Your task to perform on an android device: turn pop-ups off in chrome Image 0: 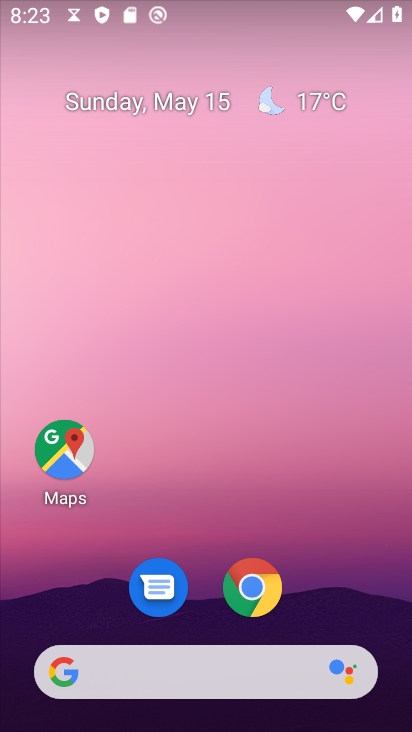
Step 0: drag from (311, 517) to (316, 347)
Your task to perform on an android device: turn pop-ups off in chrome Image 1: 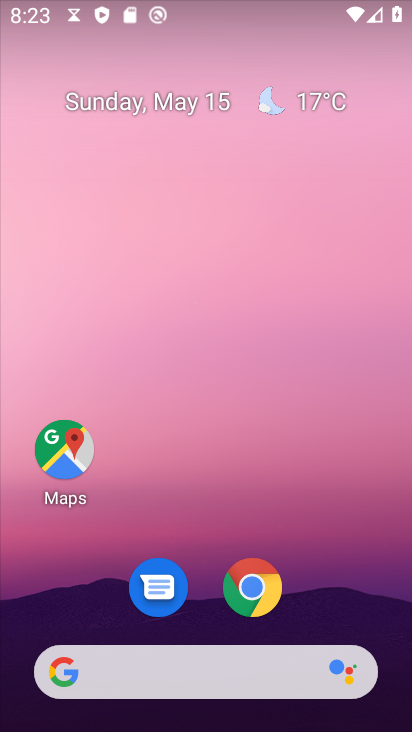
Step 1: drag from (388, 578) to (270, 129)
Your task to perform on an android device: turn pop-ups off in chrome Image 2: 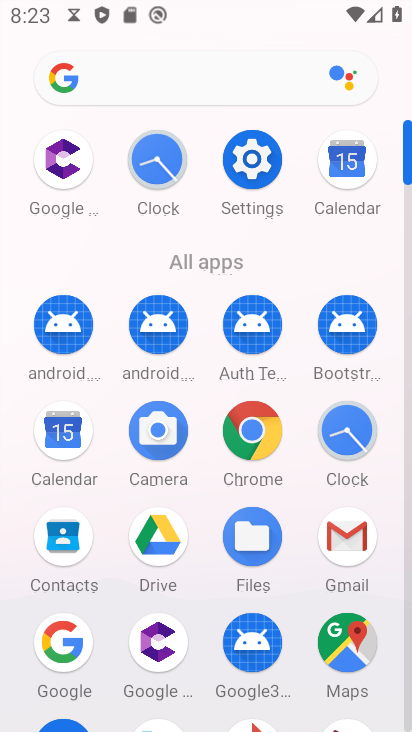
Step 2: click (252, 441)
Your task to perform on an android device: turn pop-ups off in chrome Image 3: 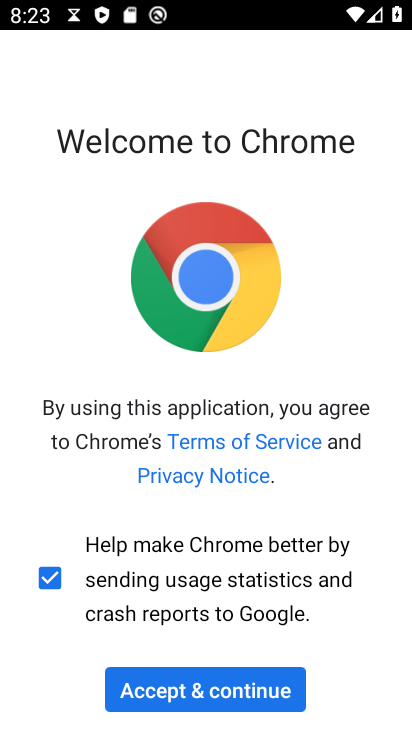
Step 3: click (168, 686)
Your task to perform on an android device: turn pop-ups off in chrome Image 4: 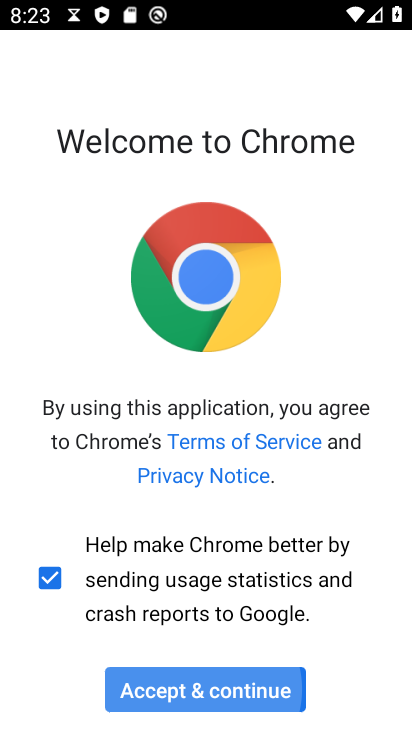
Step 4: click (169, 684)
Your task to perform on an android device: turn pop-ups off in chrome Image 5: 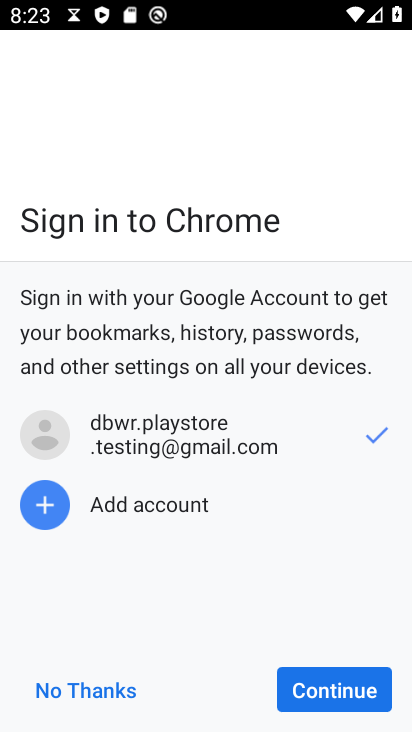
Step 5: click (169, 684)
Your task to perform on an android device: turn pop-ups off in chrome Image 6: 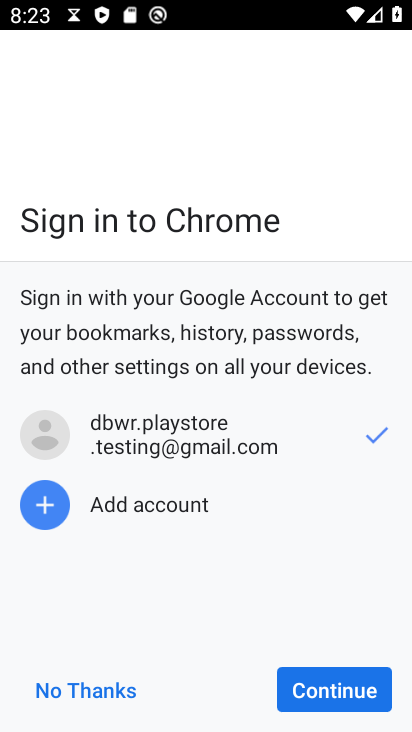
Step 6: click (327, 688)
Your task to perform on an android device: turn pop-ups off in chrome Image 7: 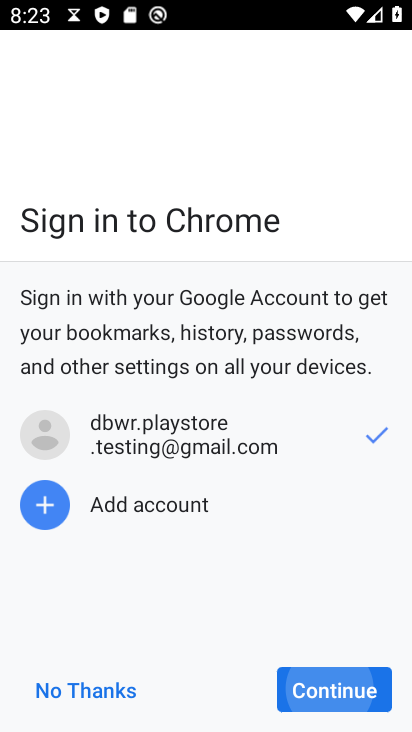
Step 7: click (327, 688)
Your task to perform on an android device: turn pop-ups off in chrome Image 8: 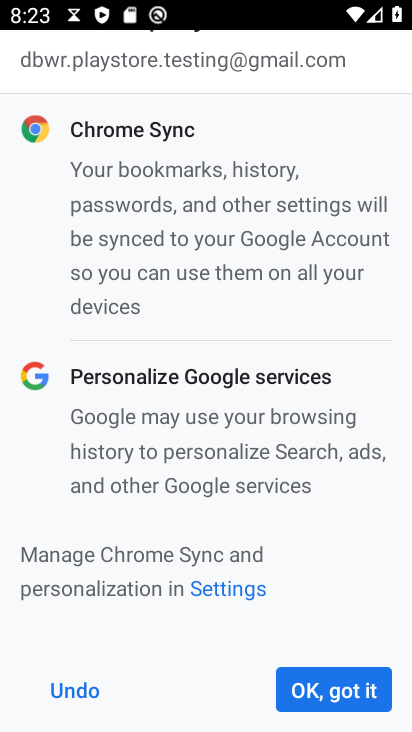
Step 8: click (328, 687)
Your task to perform on an android device: turn pop-ups off in chrome Image 9: 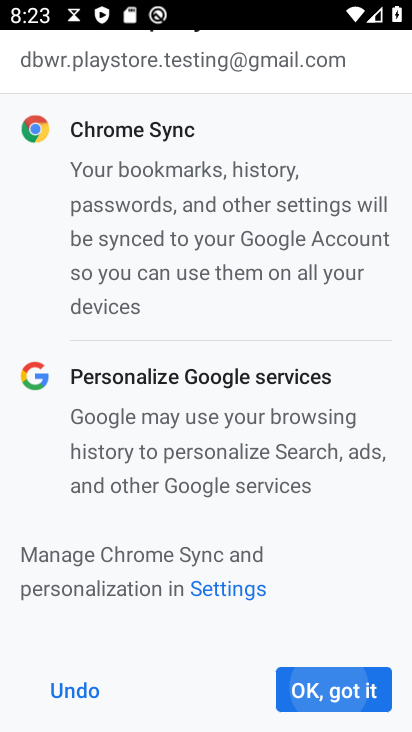
Step 9: click (329, 685)
Your task to perform on an android device: turn pop-ups off in chrome Image 10: 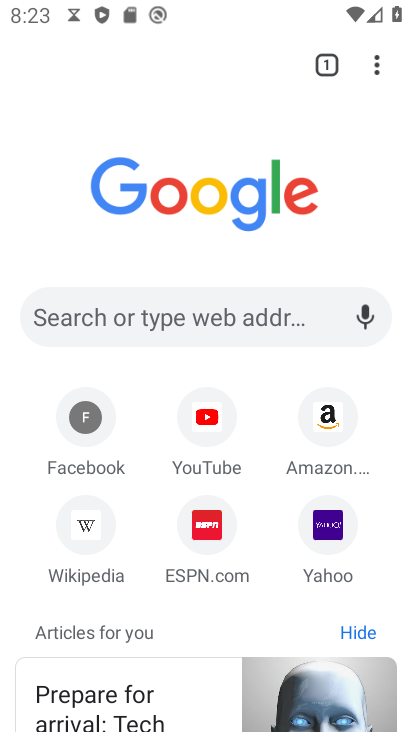
Step 10: click (374, 66)
Your task to perform on an android device: turn pop-ups off in chrome Image 11: 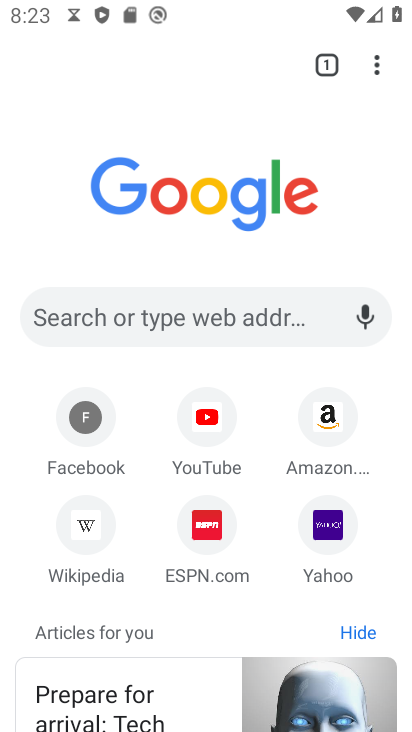
Step 11: drag from (377, 61) to (116, 539)
Your task to perform on an android device: turn pop-ups off in chrome Image 12: 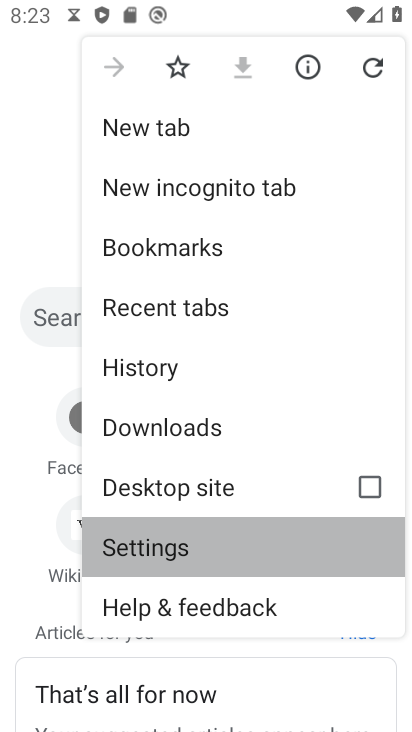
Step 12: click (116, 539)
Your task to perform on an android device: turn pop-ups off in chrome Image 13: 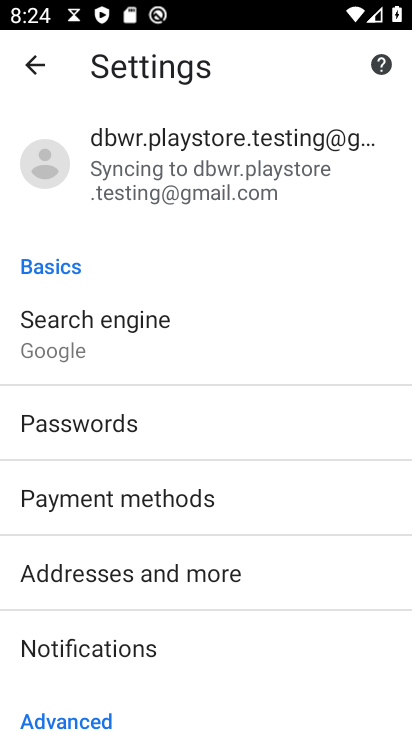
Step 13: drag from (149, 267) to (149, 96)
Your task to perform on an android device: turn pop-ups off in chrome Image 14: 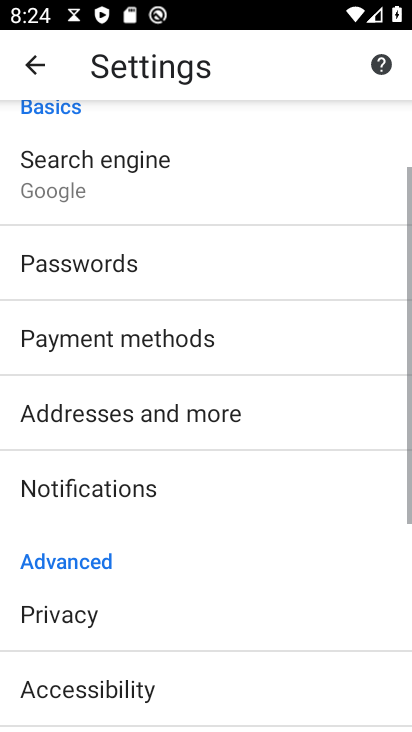
Step 14: drag from (181, 426) to (101, 256)
Your task to perform on an android device: turn pop-ups off in chrome Image 15: 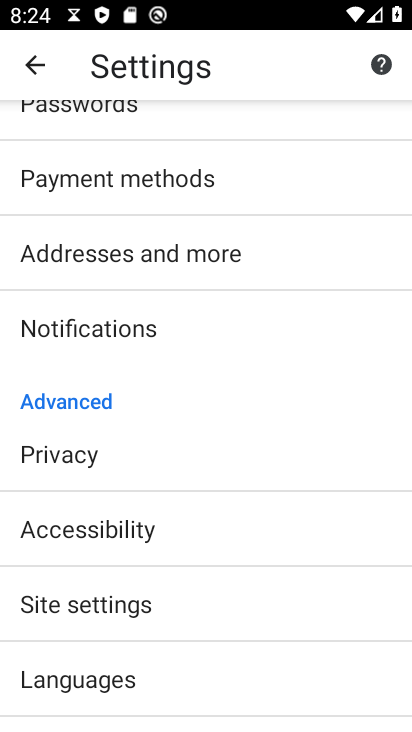
Step 15: drag from (115, 423) to (119, 264)
Your task to perform on an android device: turn pop-ups off in chrome Image 16: 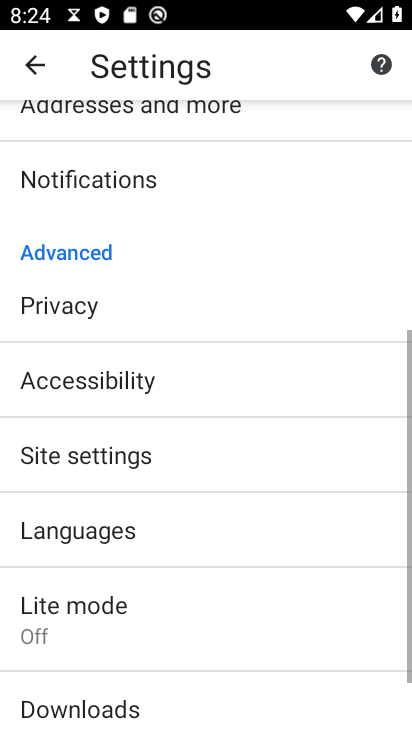
Step 16: drag from (82, 275) to (71, 203)
Your task to perform on an android device: turn pop-ups off in chrome Image 17: 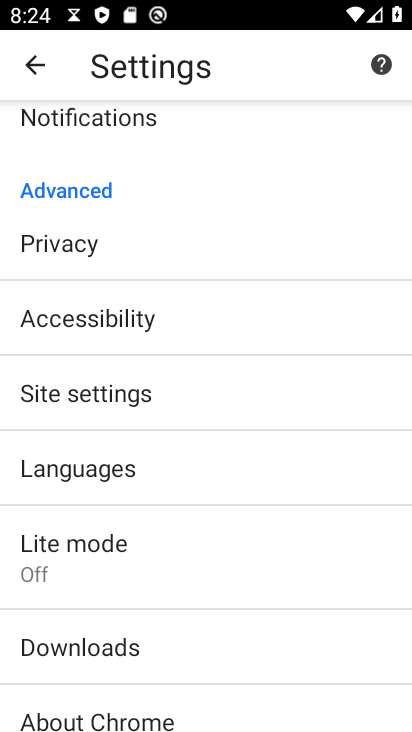
Step 17: click (76, 612)
Your task to perform on an android device: turn pop-ups off in chrome Image 18: 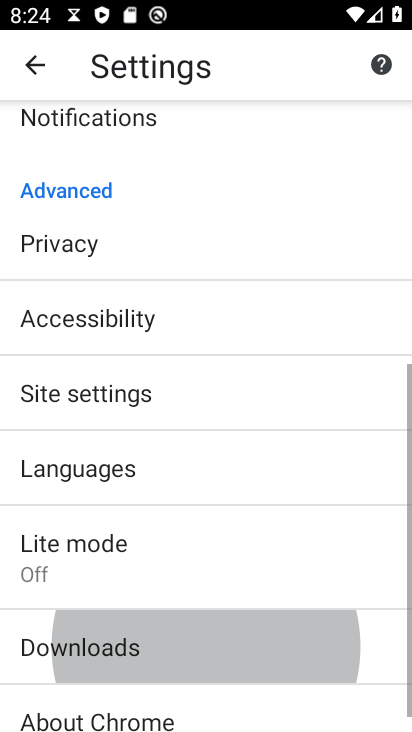
Step 18: click (90, 377)
Your task to perform on an android device: turn pop-ups off in chrome Image 19: 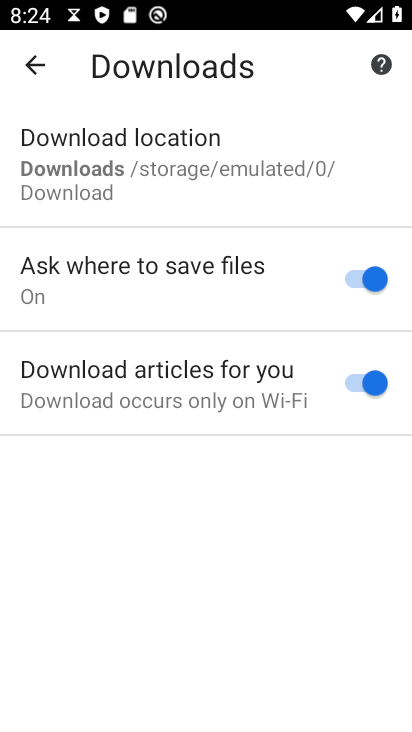
Step 19: click (41, 62)
Your task to perform on an android device: turn pop-ups off in chrome Image 20: 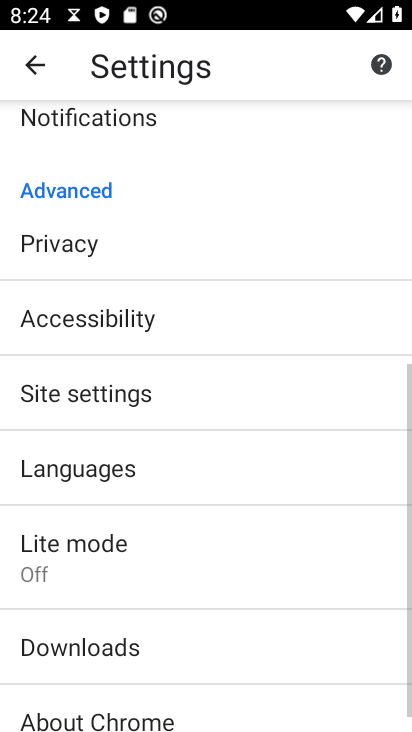
Step 20: click (68, 388)
Your task to perform on an android device: turn pop-ups off in chrome Image 21: 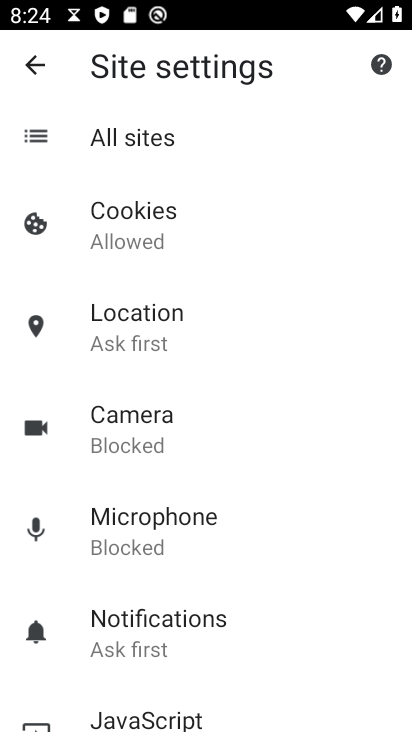
Step 21: drag from (132, 552) to (113, 96)
Your task to perform on an android device: turn pop-ups off in chrome Image 22: 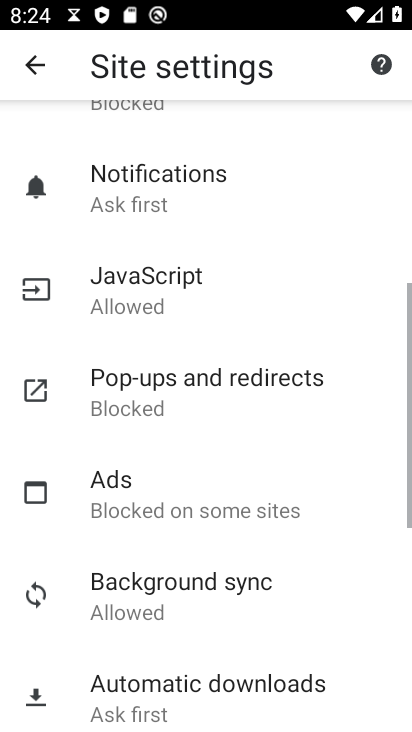
Step 22: drag from (169, 412) to (145, 111)
Your task to perform on an android device: turn pop-ups off in chrome Image 23: 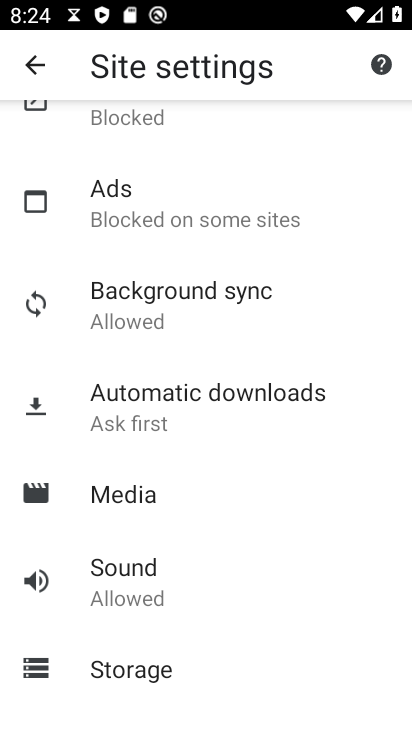
Step 23: drag from (145, 239) to (155, 529)
Your task to perform on an android device: turn pop-ups off in chrome Image 24: 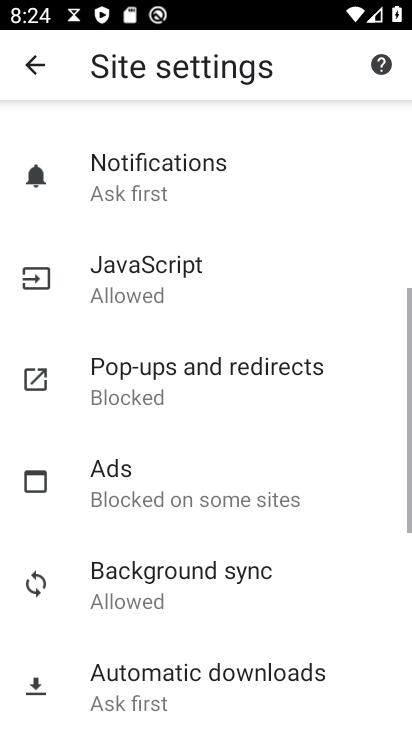
Step 24: click (150, 360)
Your task to perform on an android device: turn pop-ups off in chrome Image 25: 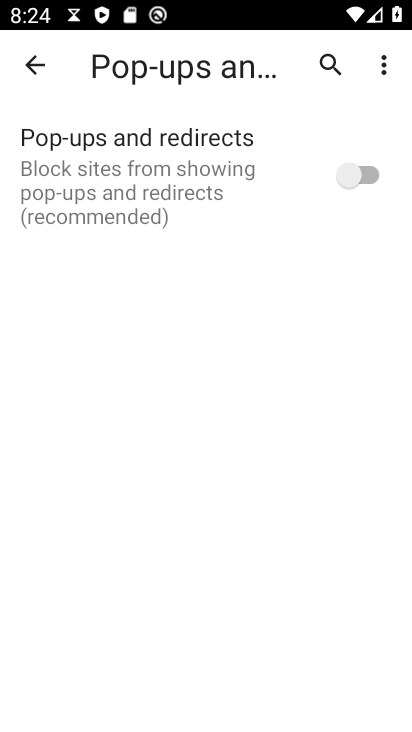
Step 25: task complete